Your task to perform on an android device: Is it going to rain today? Image 0: 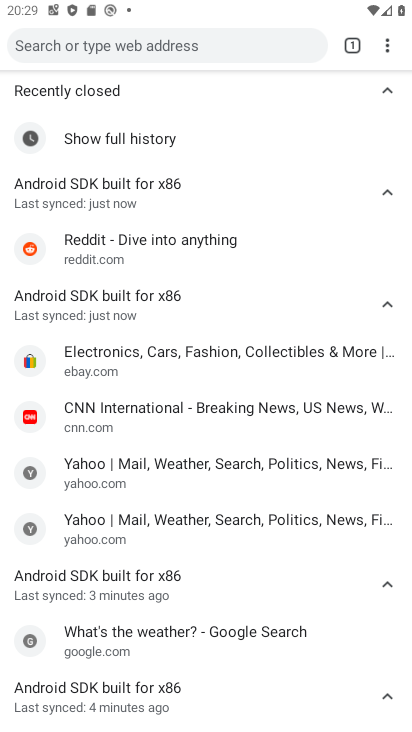
Step 0: press home button
Your task to perform on an android device: Is it going to rain today? Image 1: 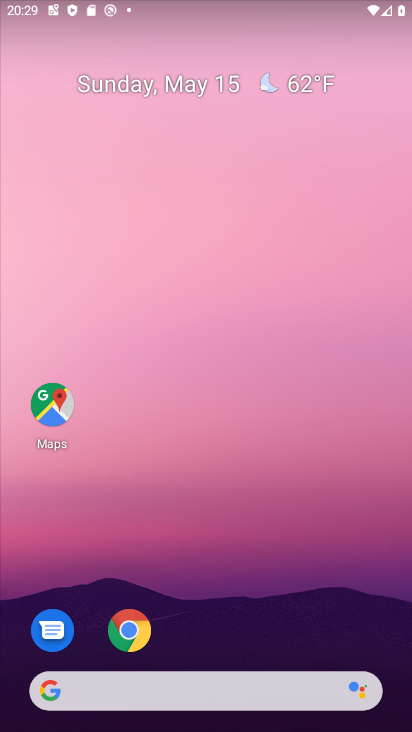
Step 1: click (293, 80)
Your task to perform on an android device: Is it going to rain today? Image 2: 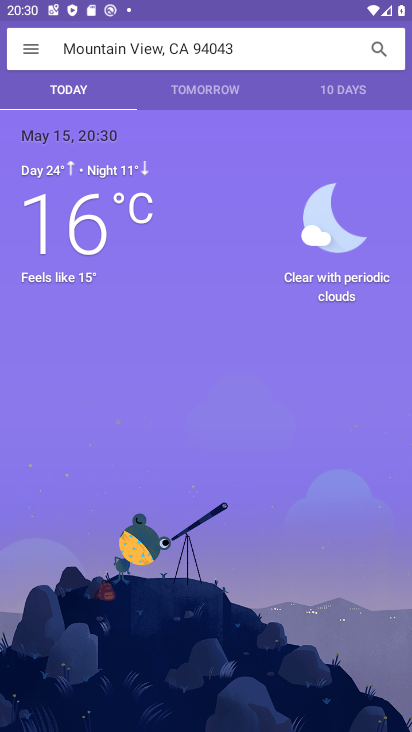
Step 2: task complete